Your task to perform on an android device: snooze an email in the gmail app Image 0: 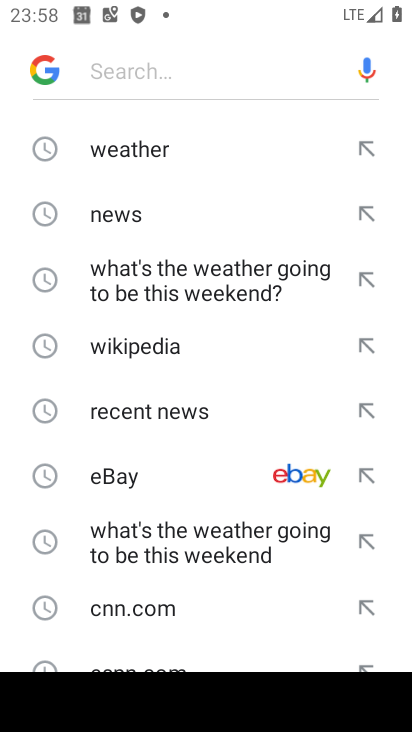
Step 0: press home button
Your task to perform on an android device: snooze an email in the gmail app Image 1: 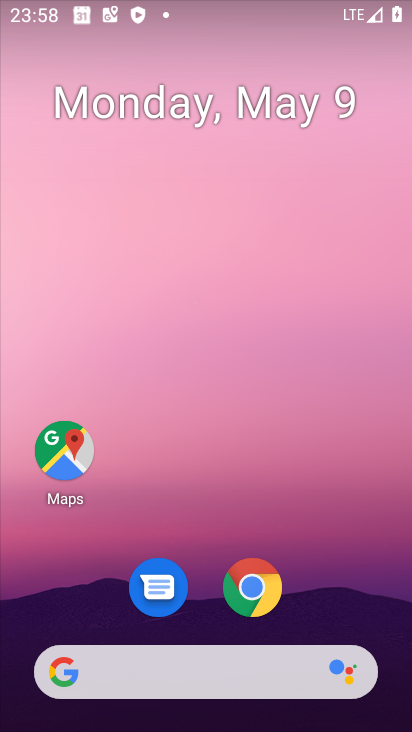
Step 1: drag from (196, 620) to (184, 170)
Your task to perform on an android device: snooze an email in the gmail app Image 2: 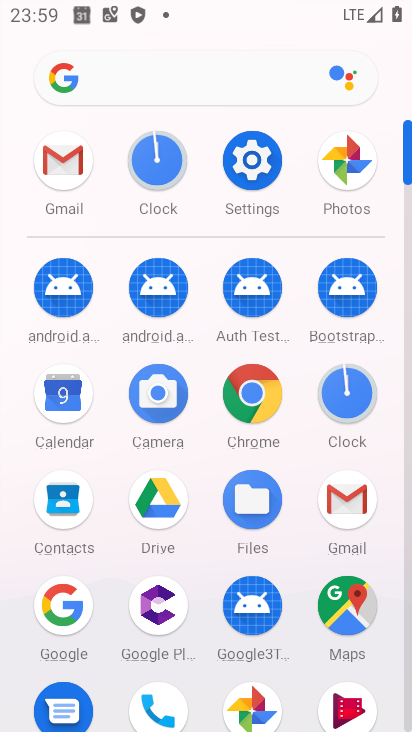
Step 2: click (355, 489)
Your task to perform on an android device: snooze an email in the gmail app Image 3: 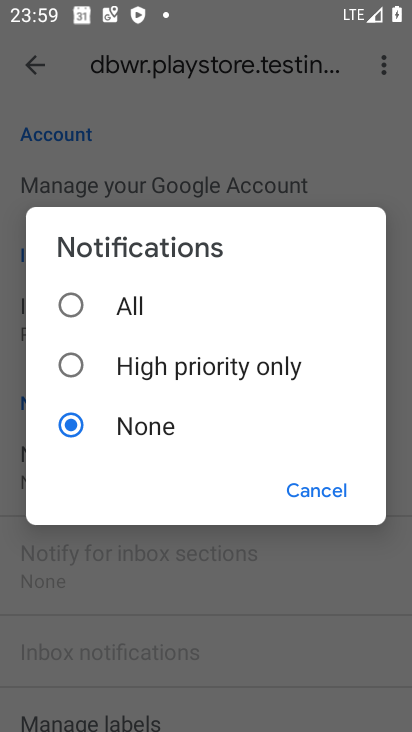
Step 3: click (355, 489)
Your task to perform on an android device: snooze an email in the gmail app Image 4: 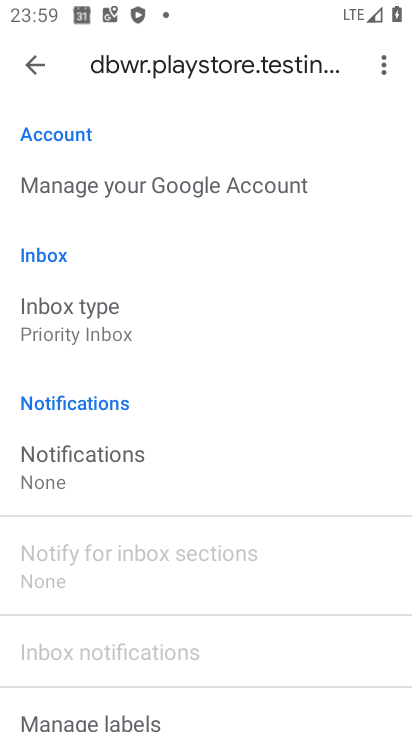
Step 4: click (51, 53)
Your task to perform on an android device: snooze an email in the gmail app Image 5: 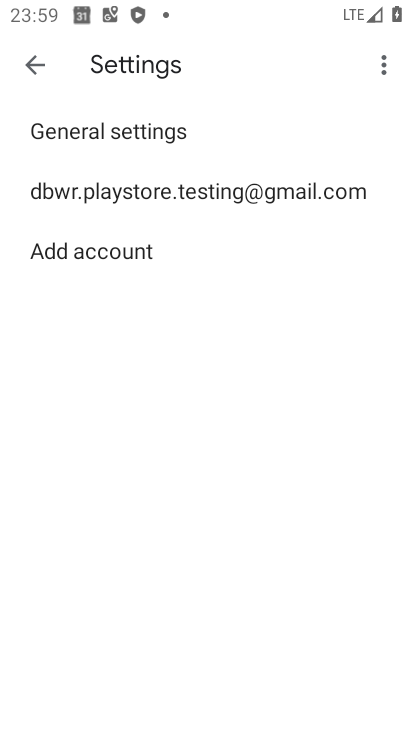
Step 5: click (51, 53)
Your task to perform on an android device: snooze an email in the gmail app Image 6: 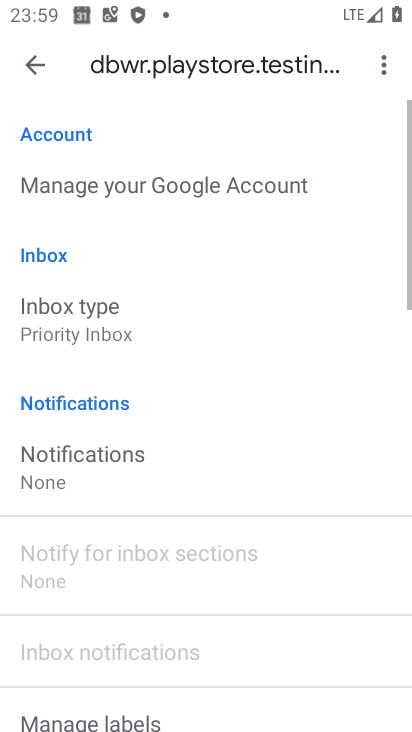
Step 6: click (51, 53)
Your task to perform on an android device: snooze an email in the gmail app Image 7: 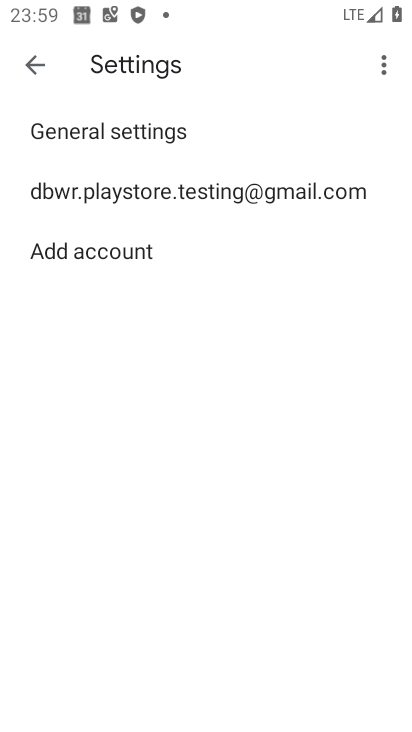
Step 7: click (51, 53)
Your task to perform on an android device: snooze an email in the gmail app Image 8: 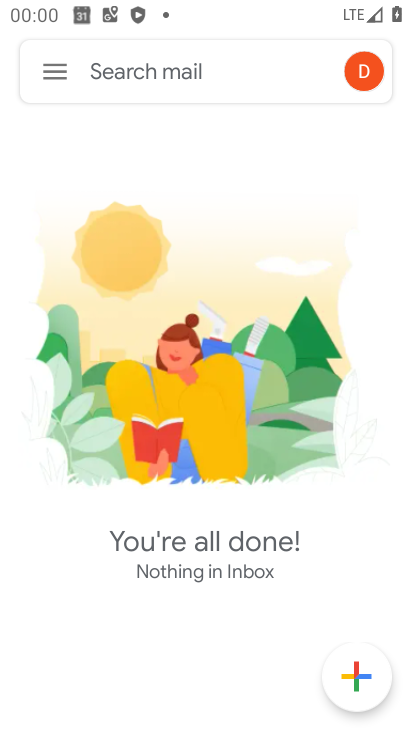
Step 8: task complete